Your task to perform on an android device: Go to ESPN.com Image 0: 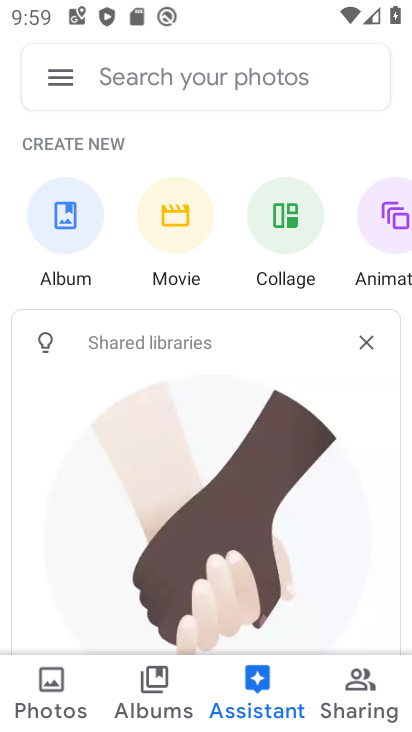
Step 0: press home button
Your task to perform on an android device: Go to ESPN.com Image 1: 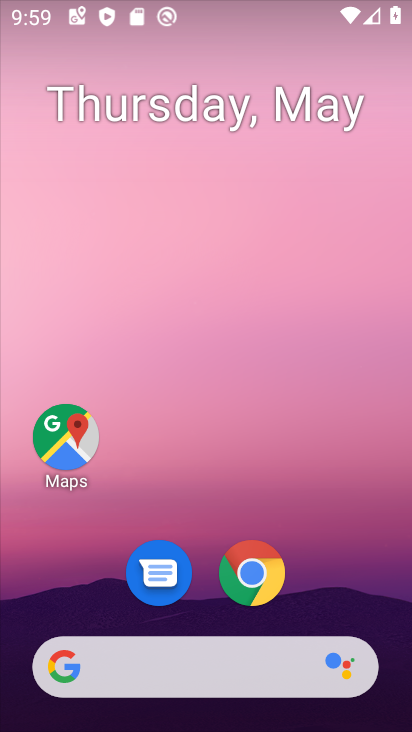
Step 1: click (256, 574)
Your task to perform on an android device: Go to ESPN.com Image 2: 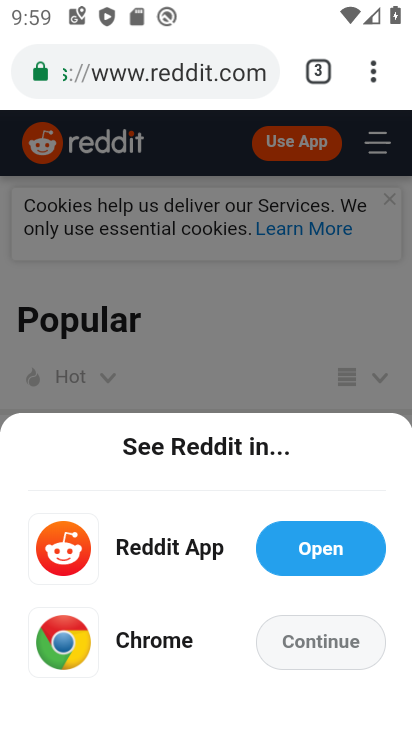
Step 2: click (306, 84)
Your task to perform on an android device: Go to ESPN.com Image 3: 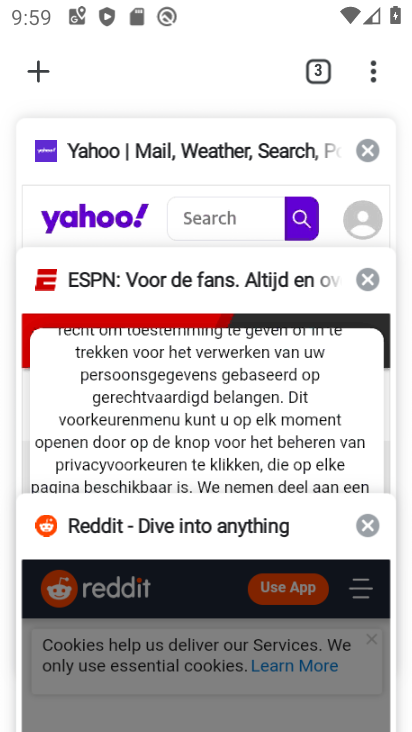
Step 3: click (169, 261)
Your task to perform on an android device: Go to ESPN.com Image 4: 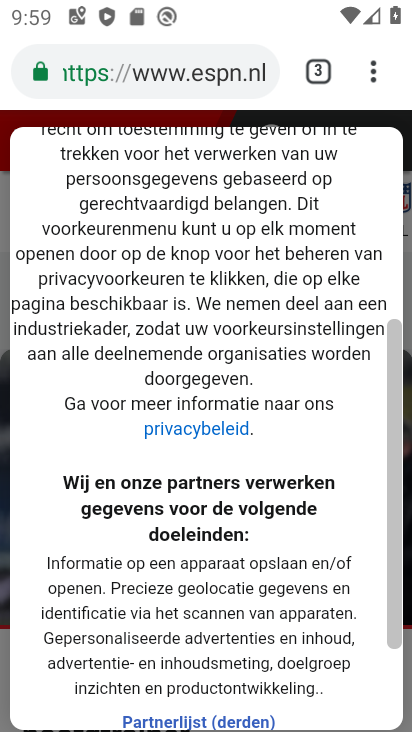
Step 4: task complete